Your task to perform on an android device: set default search engine in the chrome app Image 0: 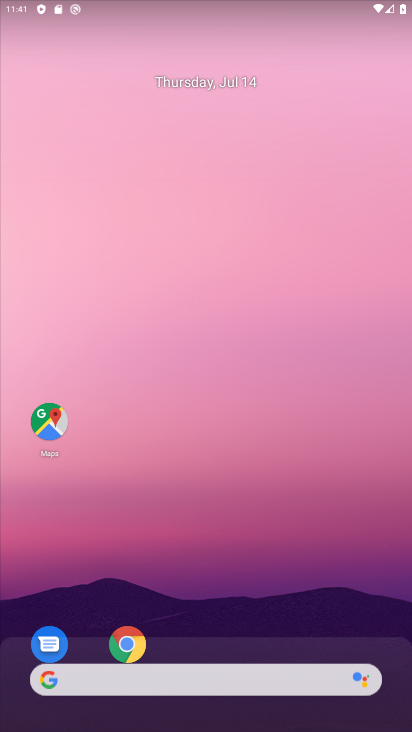
Step 0: click (130, 662)
Your task to perform on an android device: set default search engine in the chrome app Image 1: 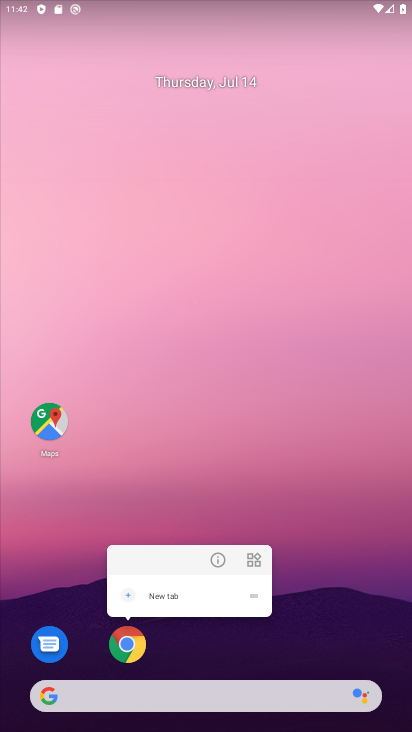
Step 1: drag from (203, 675) to (203, 254)
Your task to perform on an android device: set default search engine in the chrome app Image 2: 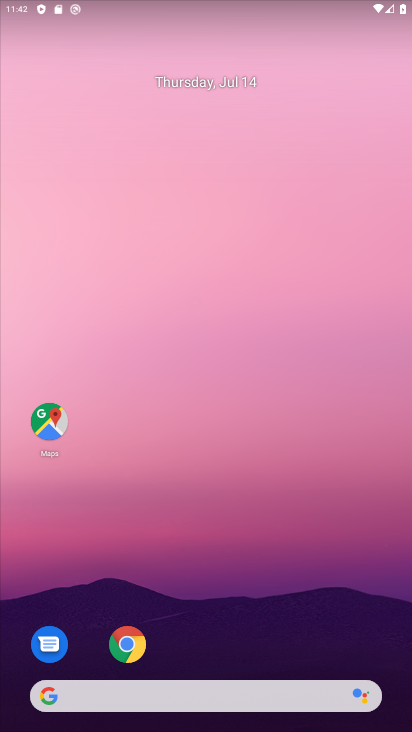
Step 2: click (125, 636)
Your task to perform on an android device: set default search engine in the chrome app Image 3: 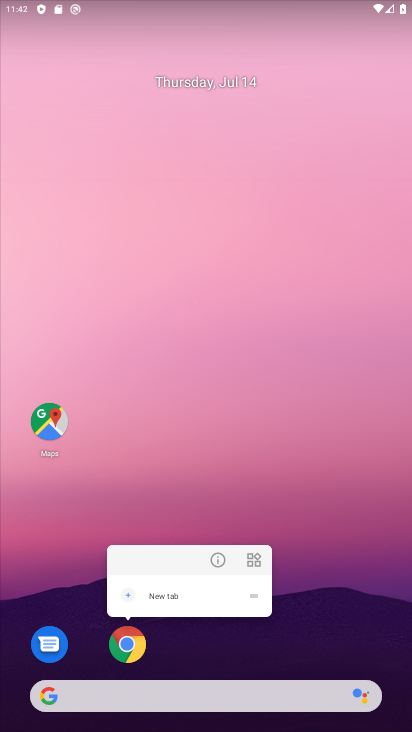
Step 3: click (122, 652)
Your task to perform on an android device: set default search engine in the chrome app Image 4: 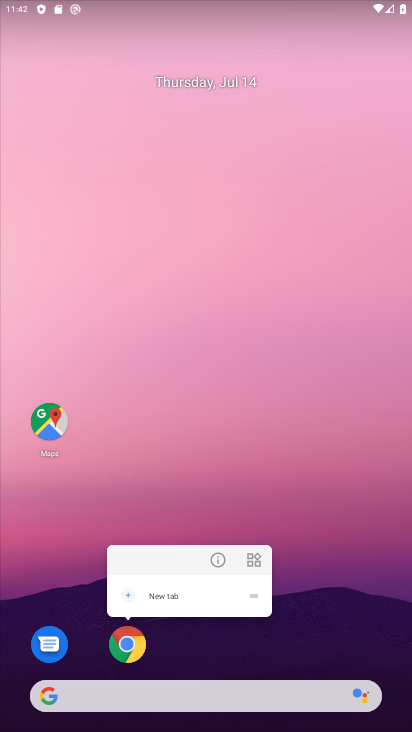
Step 4: click (122, 652)
Your task to perform on an android device: set default search engine in the chrome app Image 5: 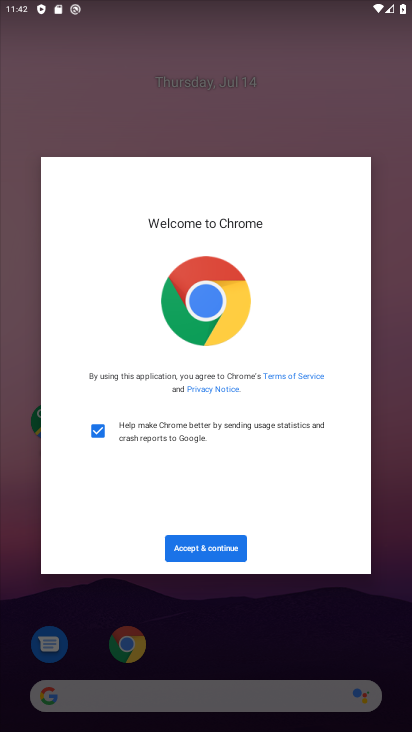
Step 5: click (198, 550)
Your task to perform on an android device: set default search engine in the chrome app Image 6: 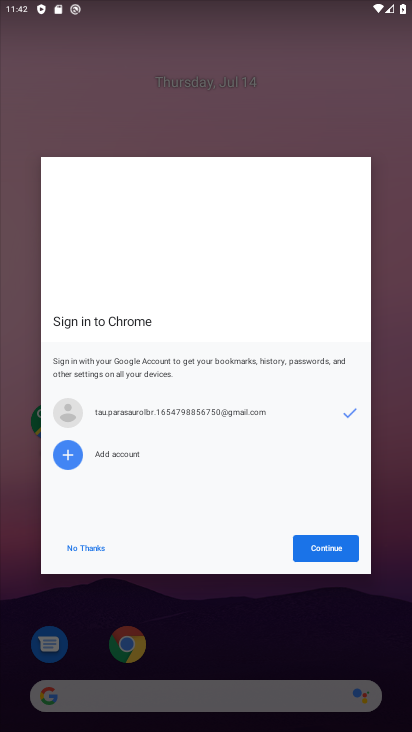
Step 6: click (343, 550)
Your task to perform on an android device: set default search engine in the chrome app Image 7: 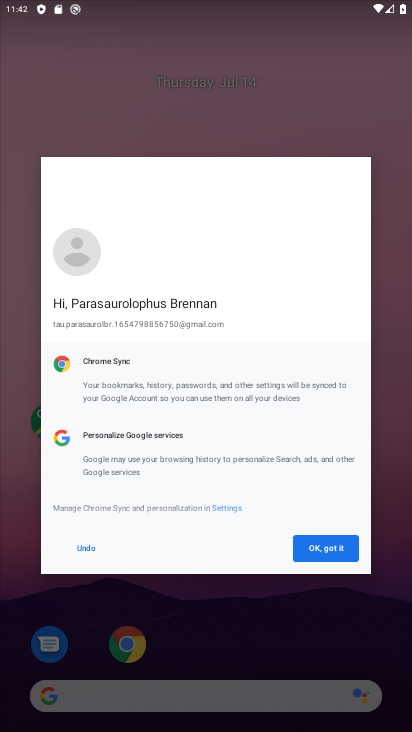
Step 7: click (343, 550)
Your task to perform on an android device: set default search engine in the chrome app Image 8: 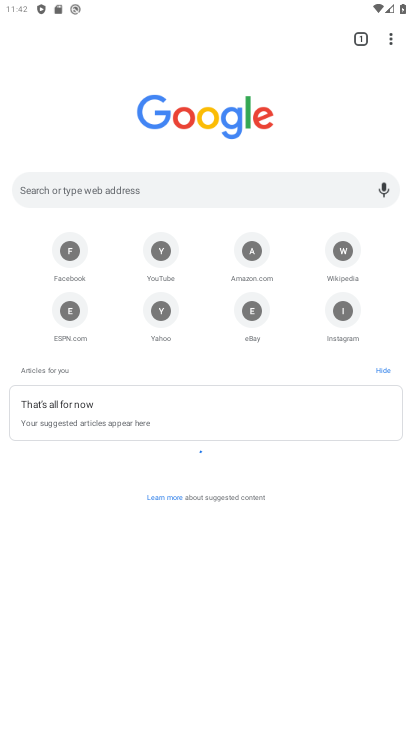
Step 8: click (389, 34)
Your task to perform on an android device: set default search engine in the chrome app Image 9: 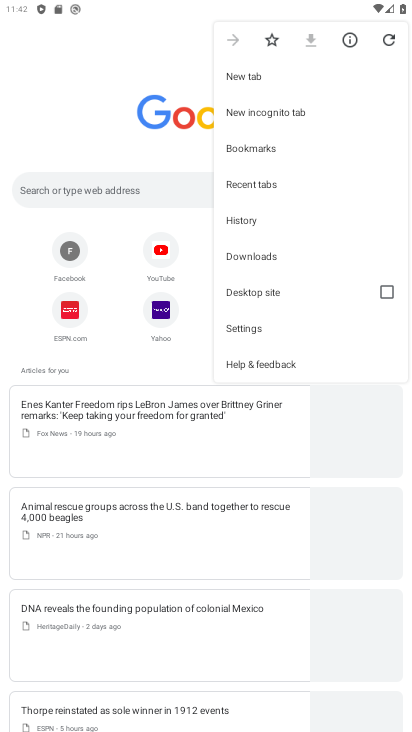
Step 9: click (246, 327)
Your task to perform on an android device: set default search engine in the chrome app Image 10: 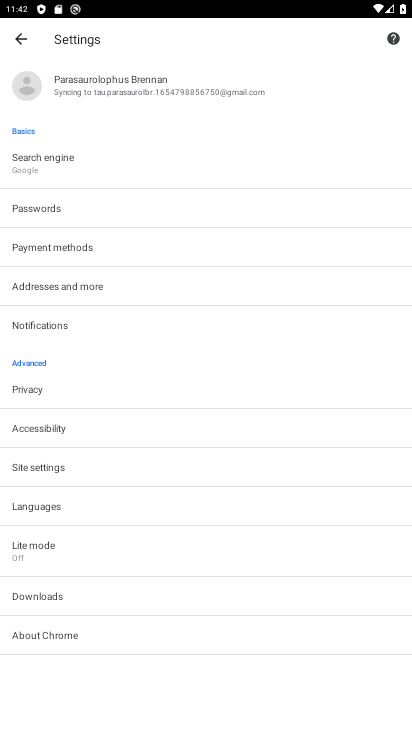
Step 10: click (57, 157)
Your task to perform on an android device: set default search engine in the chrome app Image 11: 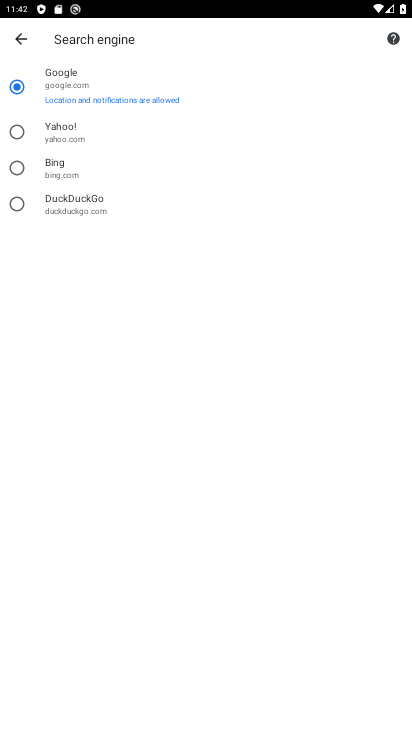
Step 11: task complete